Your task to perform on an android device: What's the weather going to be tomorrow? Image 0: 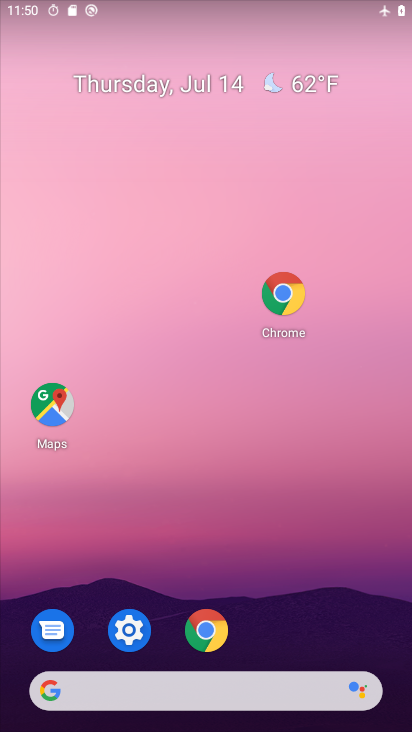
Step 0: drag from (210, 466) to (178, 147)
Your task to perform on an android device: What's the weather going to be tomorrow? Image 1: 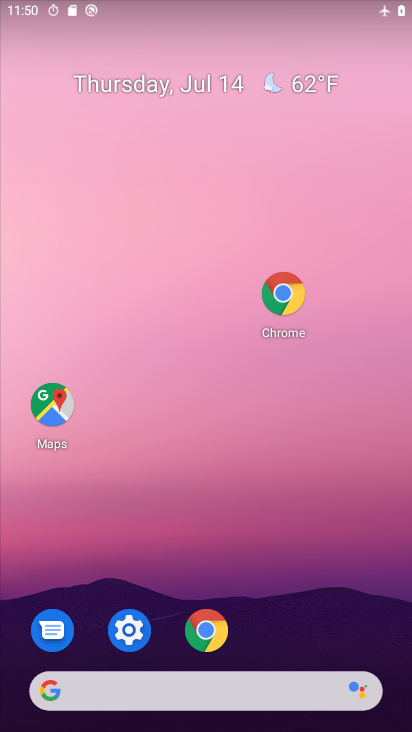
Step 1: drag from (211, 321) to (200, 263)
Your task to perform on an android device: What's the weather going to be tomorrow? Image 2: 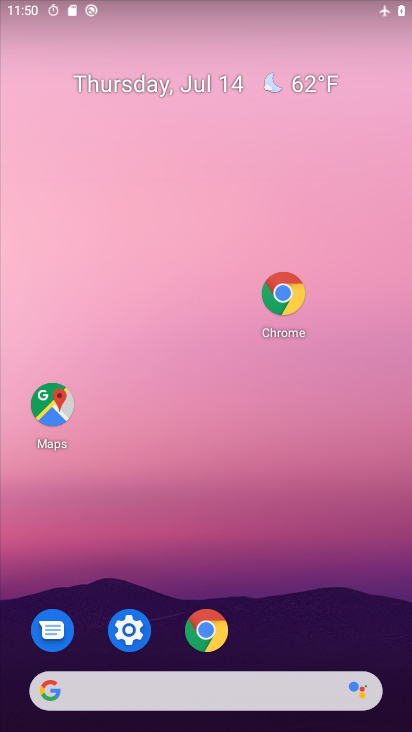
Step 2: drag from (193, 678) to (182, 205)
Your task to perform on an android device: What's the weather going to be tomorrow? Image 3: 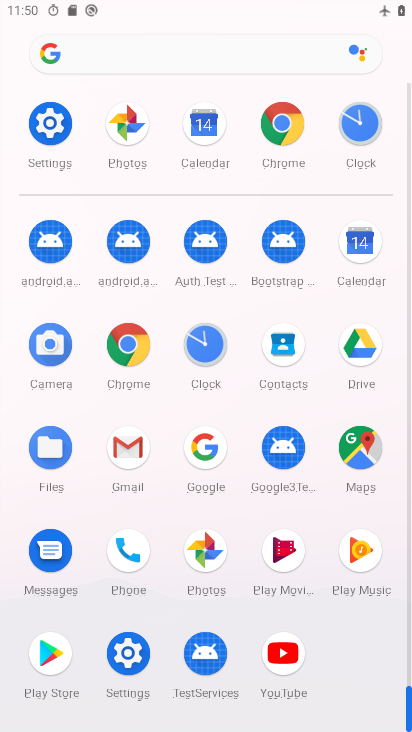
Step 3: click (289, 128)
Your task to perform on an android device: What's the weather going to be tomorrow? Image 4: 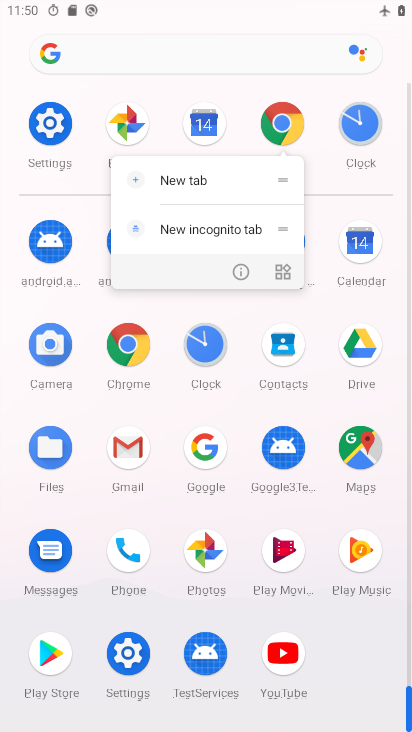
Step 4: click (259, 141)
Your task to perform on an android device: What's the weather going to be tomorrow? Image 5: 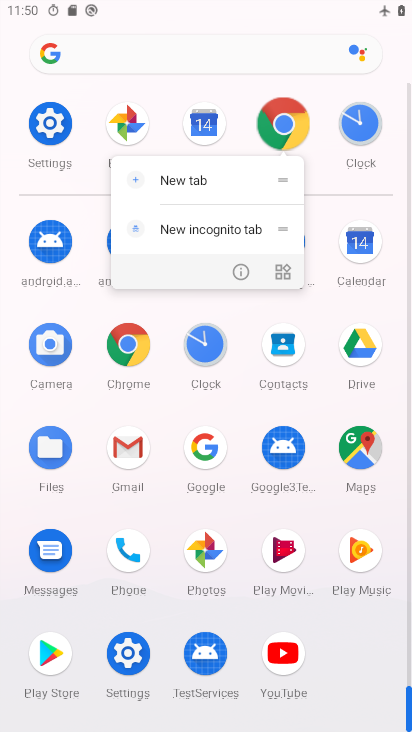
Step 5: click (274, 130)
Your task to perform on an android device: What's the weather going to be tomorrow? Image 6: 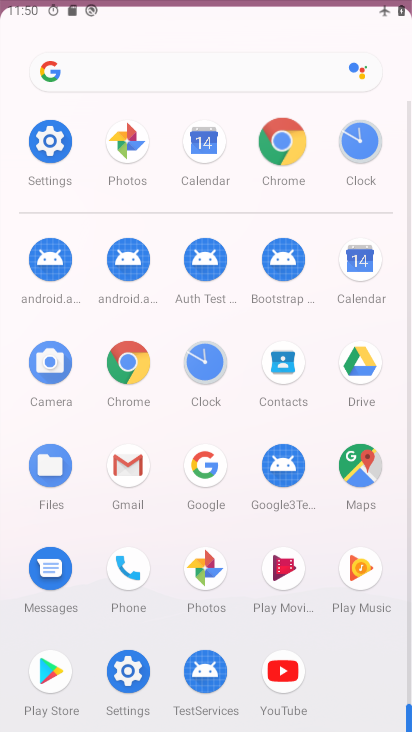
Step 6: click (280, 119)
Your task to perform on an android device: What's the weather going to be tomorrow? Image 7: 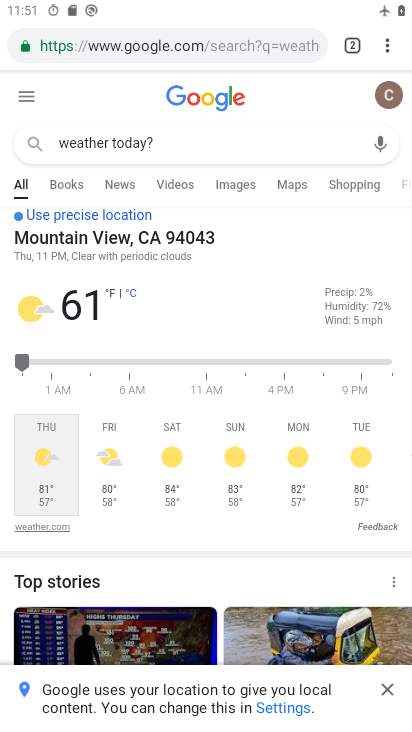
Step 7: click (385, 44)
Your task to perform on an android device: What's the weather going to be tomorrow? Image 8: 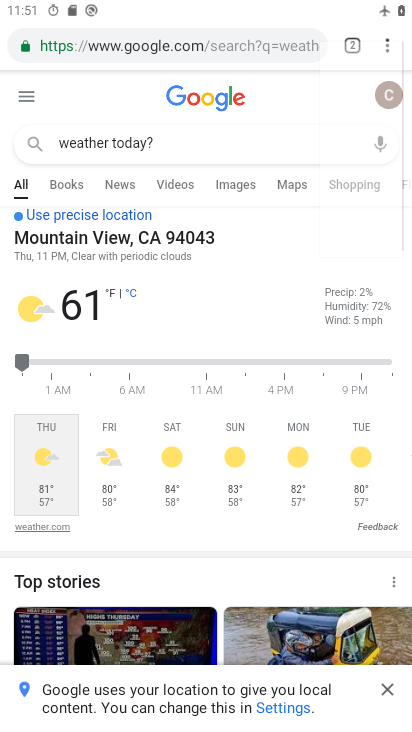
Step 8: drag from (385, 44) to (221, 150)
Your task to perform on an android device: What's the weather going to be tomorrow? Image 9: 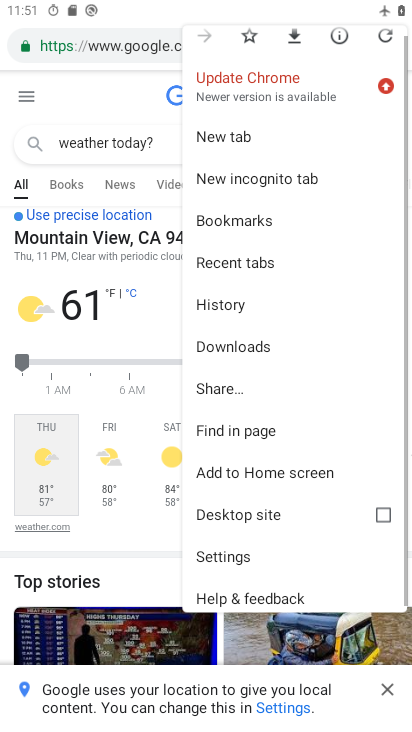
Step 9: click (224, 148)
Your task to perform on an android device: What's the weather going to be tomorrow? Image 10: 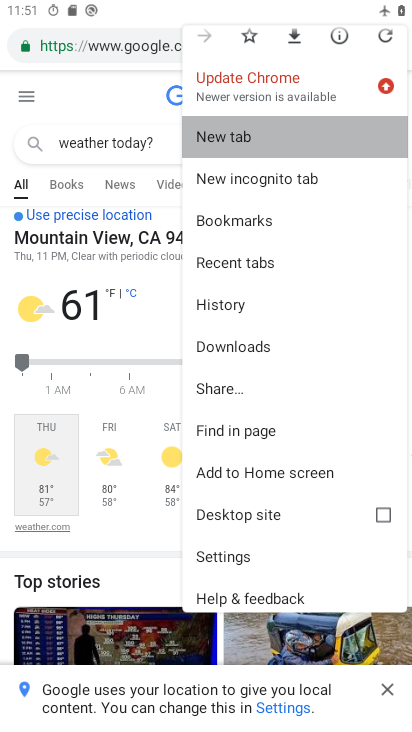
Step 10: click (226, 145)
Your task to perform on an android device: What's the weather going to be tomorrow? Image 11: 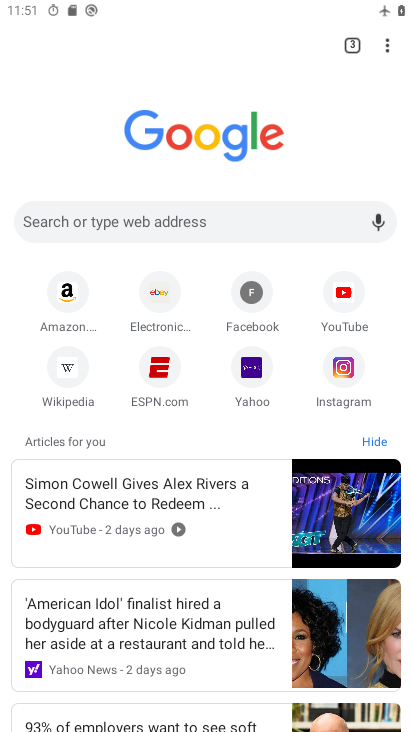
Step 11: click (64, 224)
Your task to perform on an android device: What's the weather going to be tomorrow? Image 12: 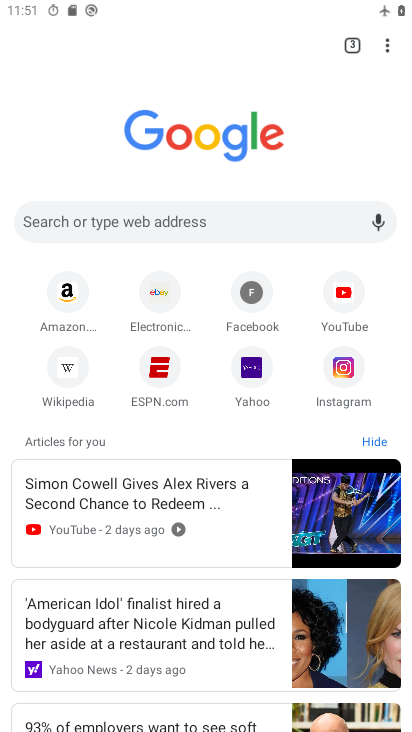
Step 12: click (64, 224)
Your task to perform on an android device: What's the weather going to be tomorrow? Image 13: 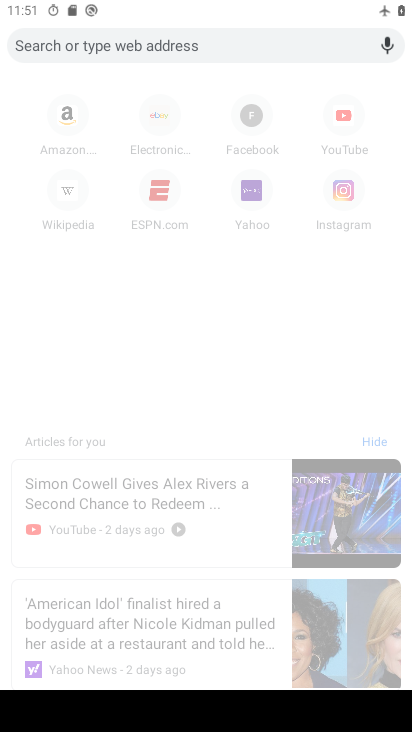
Step 13: type "weather today?"
Your task to perform on an android device: What's the weather going to be tomorrow? Image 14: 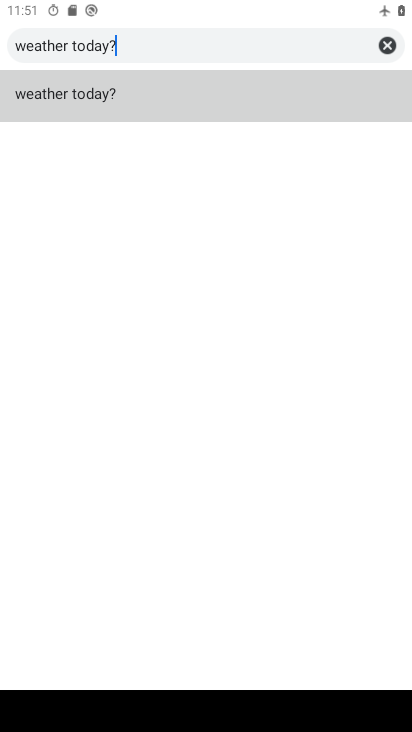
Step 14: click (81, 91)
Your task to perform on an android device: What's the weather going to be tomorrow? Image 15: 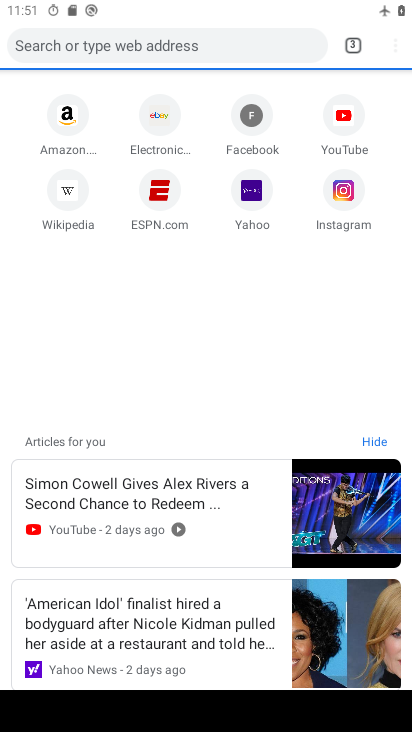
Step 15: click (81, 105)
Your task to perform on an android device: What's the weather going to be tomorrow? Image 16: 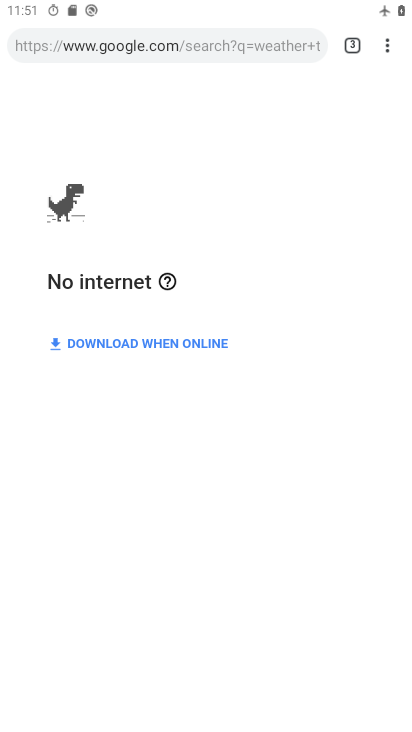
Step 16: task complete